Your task to perform on an android device: Open the calendar app, open the side menu, and click the "Day" option Image 0: 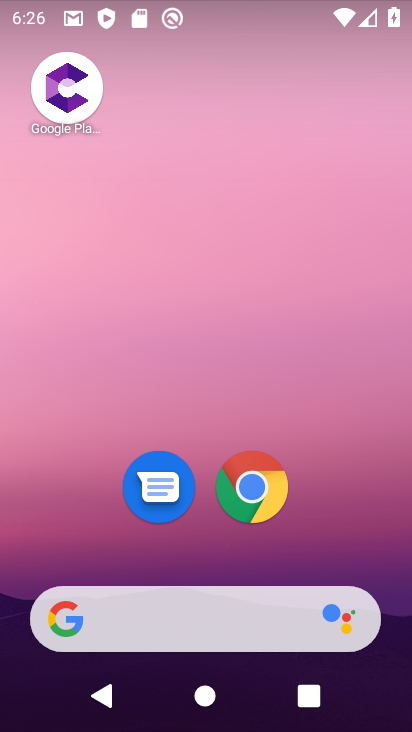
Step 0: drag from (370, 523) to (315, 0)
Your task to perform on an android device: Open the calendar app, open the side menu, and click the "Day" option Image 1: 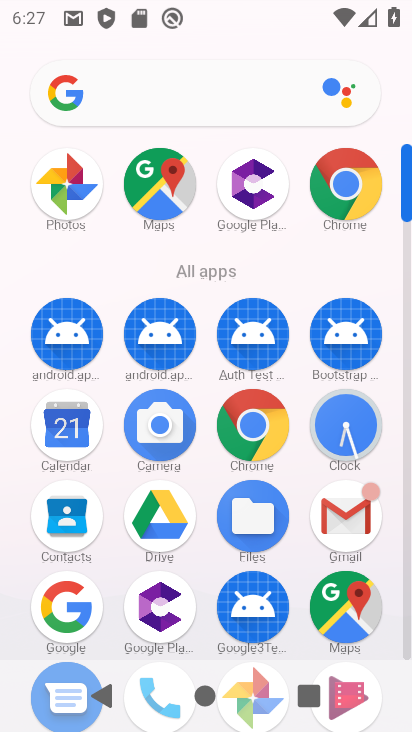
Step 1: drag from (408, 211) to (385, 445)
Your task to perform on an android device: Open the calendar app, open the side menu, and click the "Day" option Image 2: 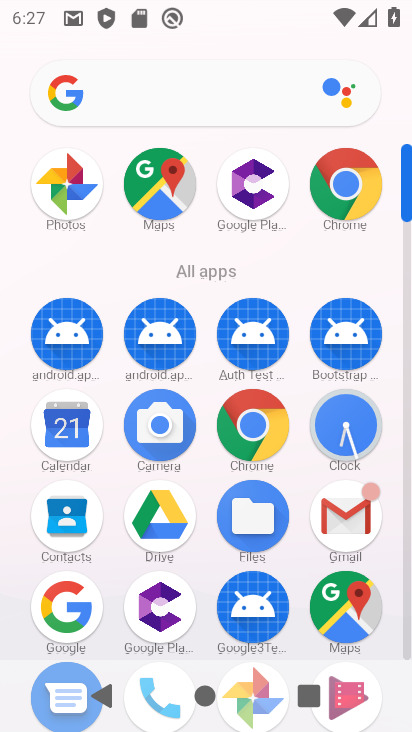
Step 2: click (71, 431)
Your task to perform on an android device: Open the calendar app, open the side menu, and click the "Day" option Image 3: 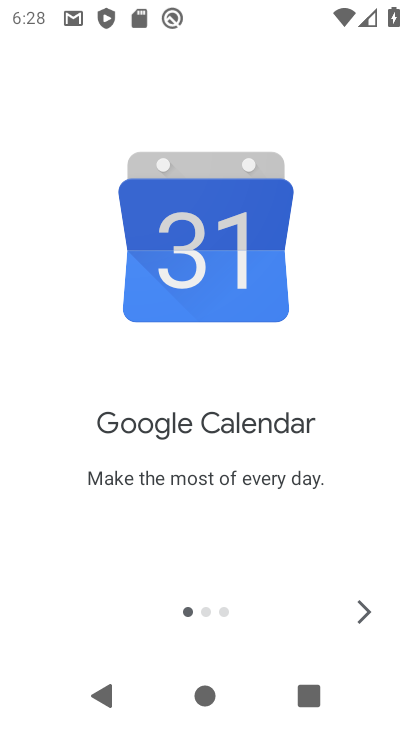
Step 3: click (372, 604)
Your task to perform on an android device: Open the calendar app, open the side menu, and click the "Day" option Image 4: 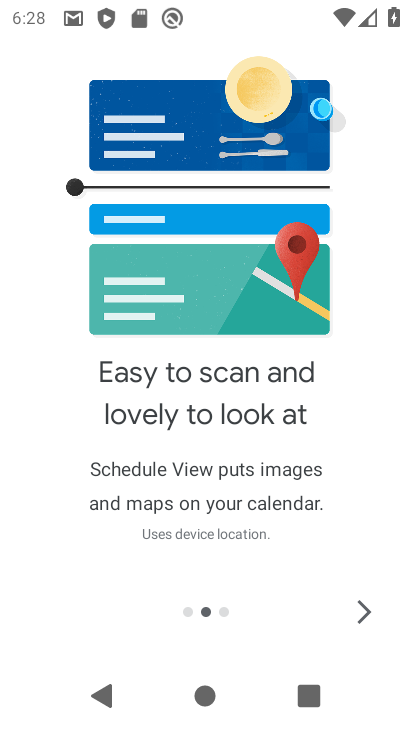
Step 4: click (367, 617)
Your task to perform on an android device: Open the calendar app, open the side menu, and click the "Day" option Image 5: 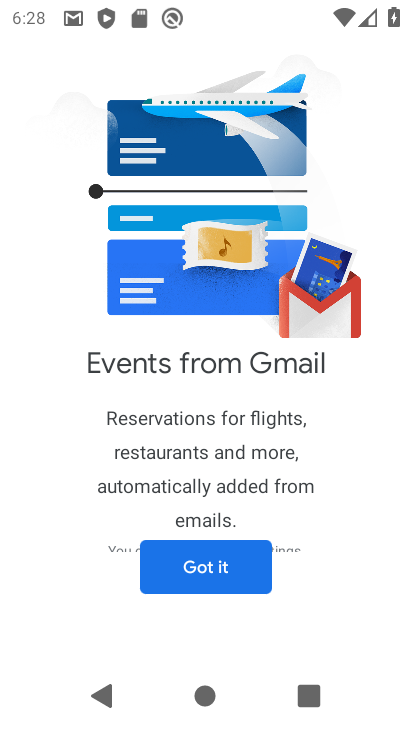
Step 5: press home button
Your task to perform on an android device: Open the calendar app, open the side menu, and click the "Day" option Image 6: 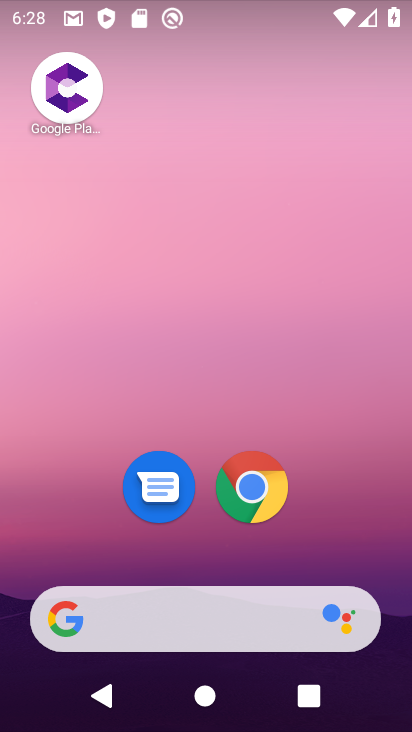
Step 6: drag from (302, 543) to (307, 69)
Your task to perform on an android device: Open the calendar app, open the side menu, and click the "Day" option Image 7: 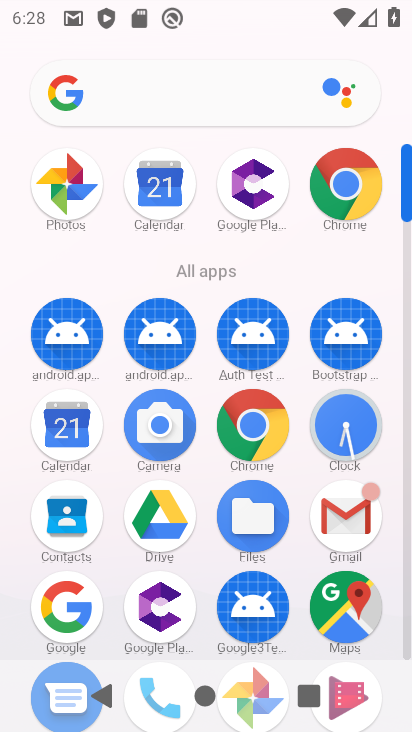
Step 7: click (90, 446)
Your task to perform on an android device: Open the calendar app, open the side menu, and click the "Day" option Image 8: 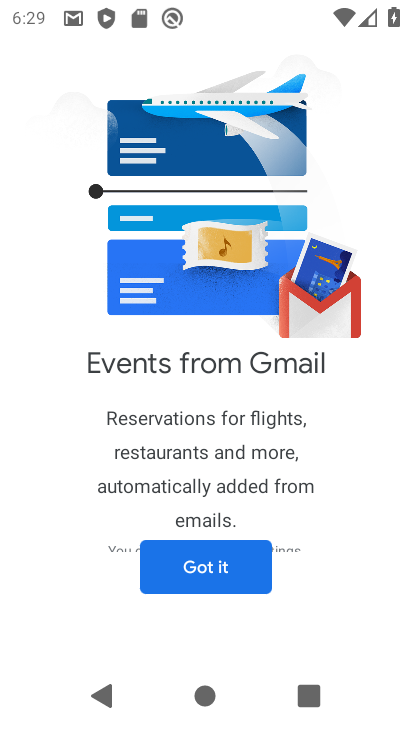
Step 8: click (176, 558)
Your task to perform on an android device: Open the calendar app, open the side menu, and click the "Day" option Image 9: 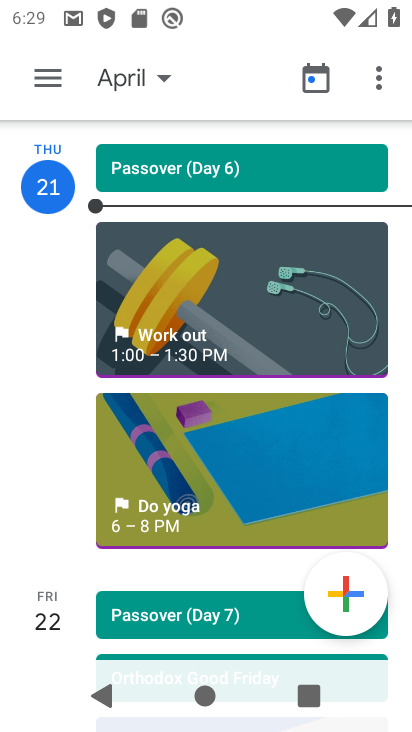
Step 9: click (121, 78)
Your task to perform on an android device: Open the calendar app, open the side menu, and click the "Day" option Image 10: 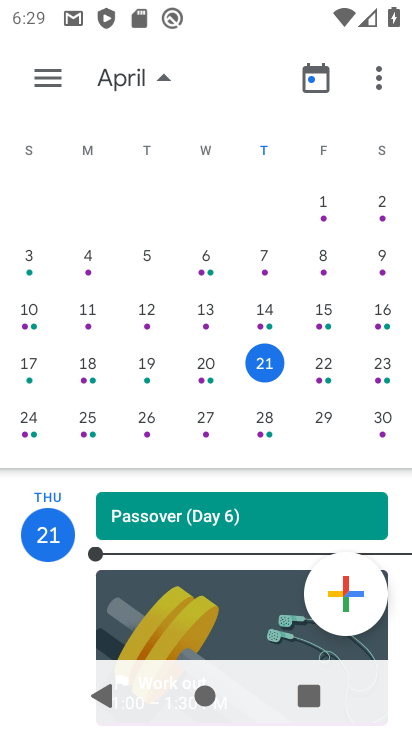
Step 10: click (44, 74)
Your task to perform on an android device: Open the calendar app, open the side menu, and click the "Day" option Image 11: 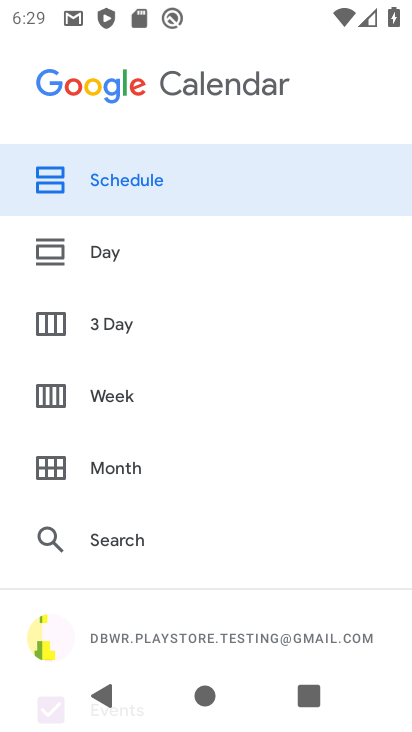
Step 11: click (115, 256)
Your task to perform on an android device: Open the calendar app, open the side menu, and click the "Day" option Image 12: 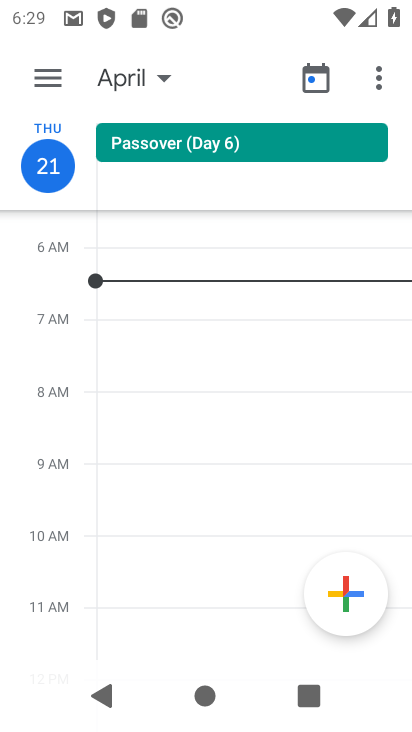
Step 12: task complete